Your task to perform on an android device: toggle priority inbox in the gmail app Image 0: 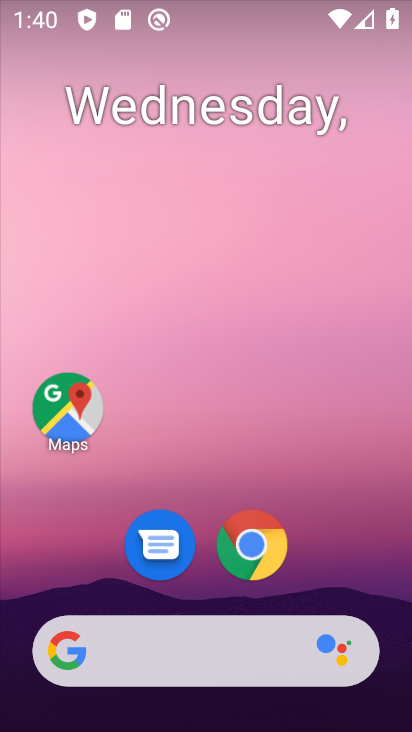
Step 0: drag from (326, 574) to (327, 123)
Your task to perform on an android device: toggle priority inbox in the gmail app Image 1: 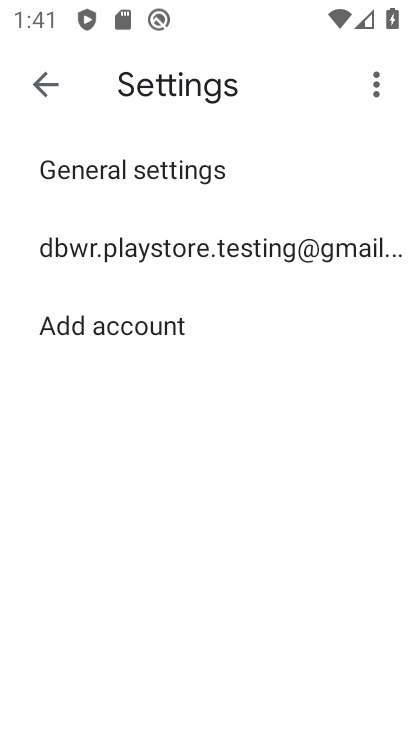
Step 1: click (239, 243)
Your task to perform on an android device: toggle priority inbox in the gmail app Image 2: 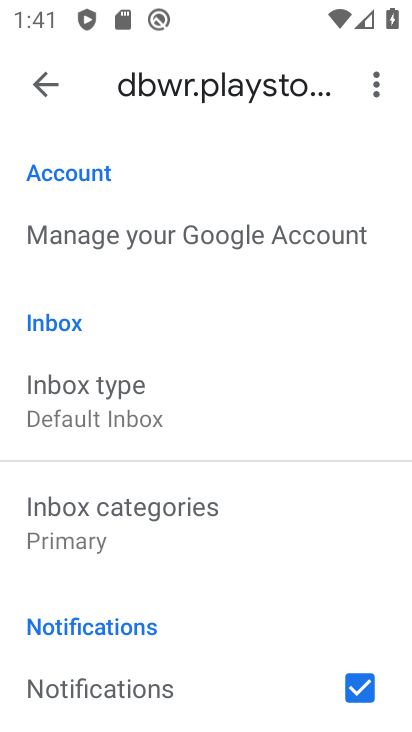
Step 2: click (200, 419)
Your task to perform on an android device: toggle priority inbox in the gmail app Image 3: 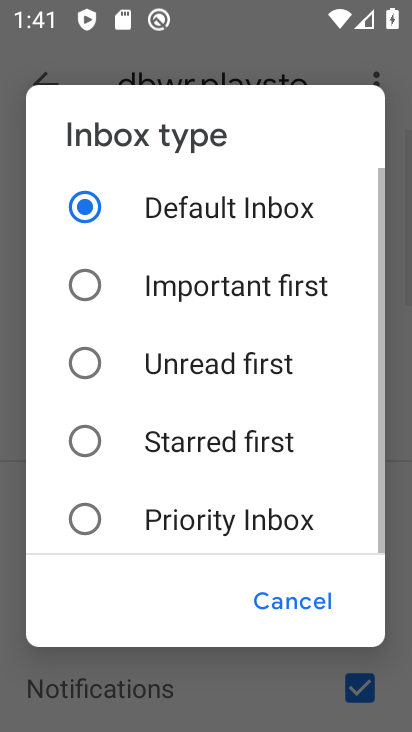
Step 3: click (140, 527)
Your task to perform on an android device: toggle priority inbox in the gmail app Image 4: 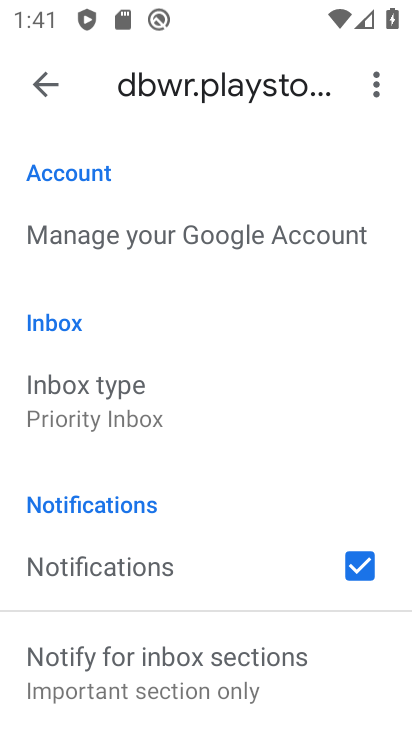
Step 4: task complete